Your task to perform on an android device: turn off notifications settings in the gmail app Image 0: 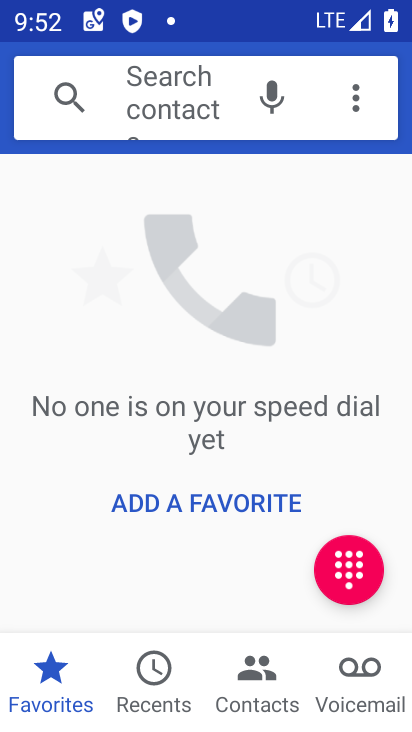
Step 0: press home button
Your task to perform on an android device: turn off notifications settings in the gmail app Image 1: 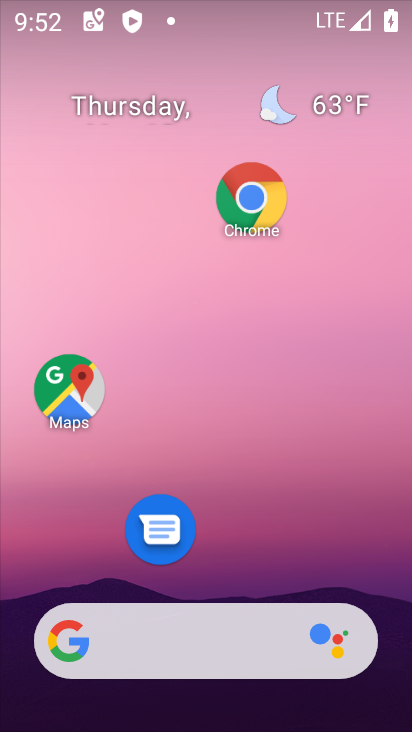
Step 1: drag from (163, 668) to (231, 148)
Your task to perform on an android device: turn off notifications settings in the gmail app Image 2: 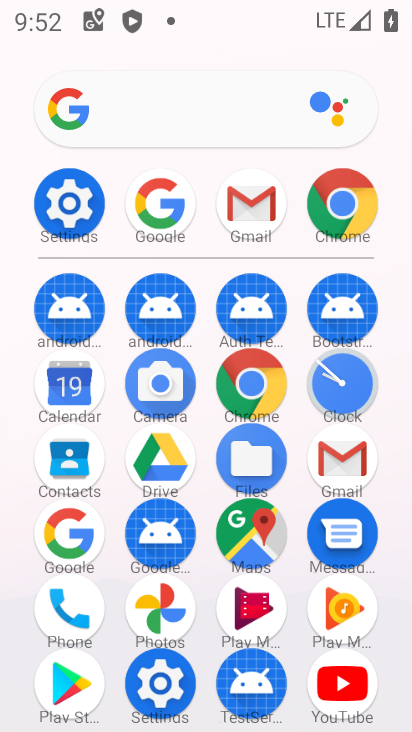
Step 2: click (355, 466)
Your task to perform on an android device: turn off notifications settings in the gmail app Image 3: 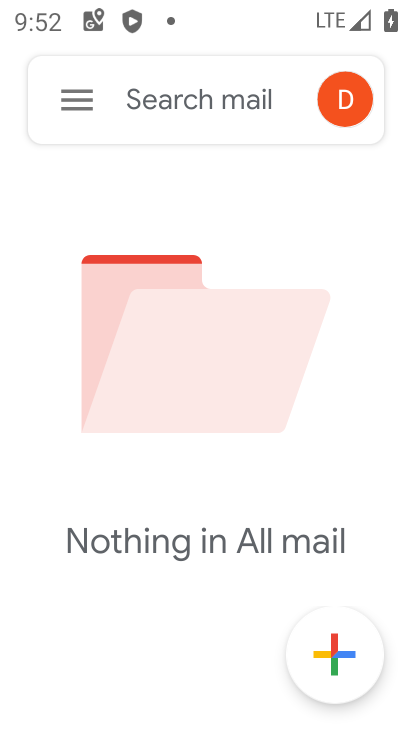
Step 3: click (83, 111)
Your task to perform on an android device: turn off notifications settings in the gmail app Image 4: 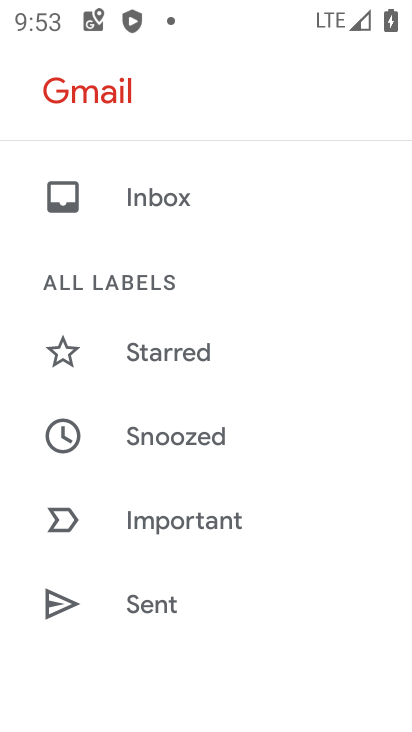
Step 4: drag from (158, 589) to (178, 169)
Your task to perform on an android device: turn off notifications settings in the gmail app Image 5: 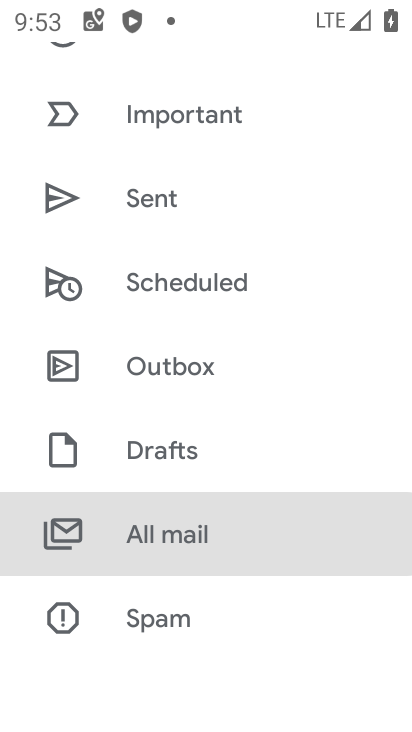
Step 5: drag from (181, 567) to (232, 184)
Your task to perform on an android device: turn off notifications settings in the gmail app Image 6: 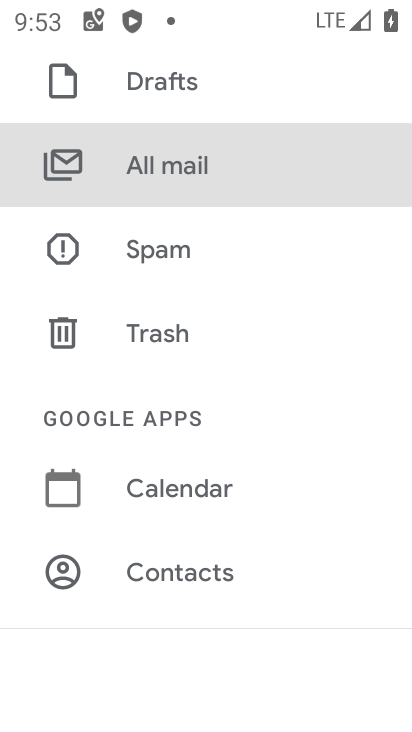
Step 6: drag from (161, 608) to (227, 248)
Your task to perform on an android device: turn off notifications settings in the gmail app Image 7: 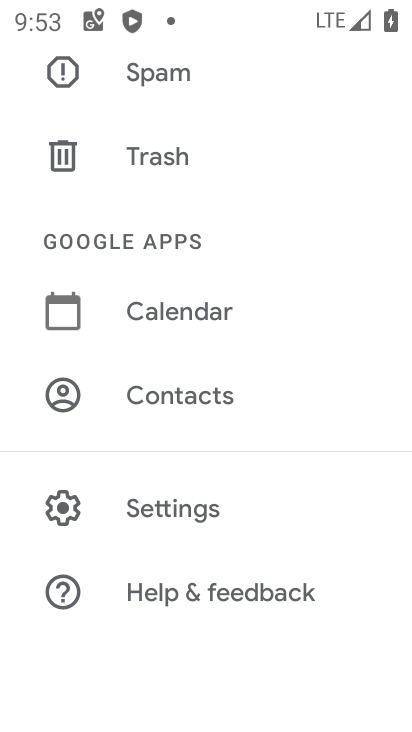
Step 7: click (186, 521)
Your task to perform on an android device: turn off notifications settings in the gmail app Image 8: 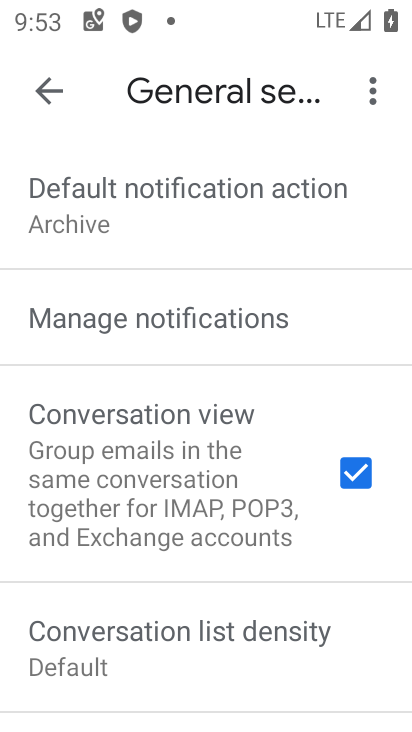
Step 8: click (195, 317)
Your task to perform on an android device: turn off notifications settings in the gmail app Image 9: 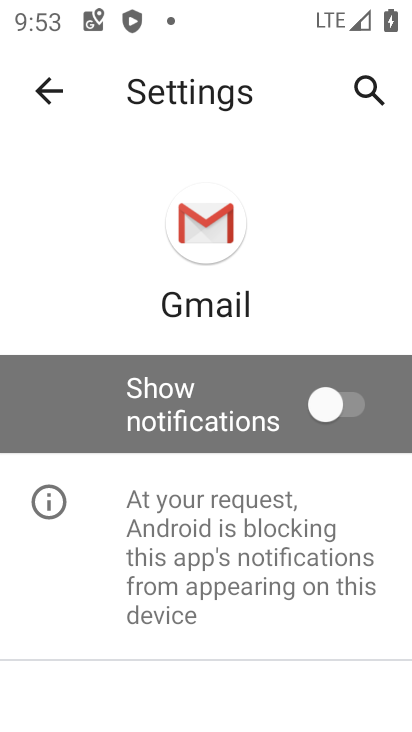
Step 9: task complete